Your task to perform on an android device: turn off javascript in the chrome app Image 0: 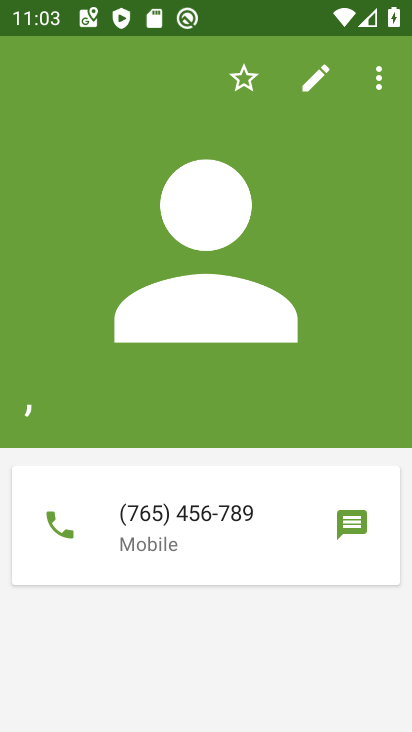
Step 0: press home button
Your task to perform on an android device: turn off javascript in the chrome app Image 1: 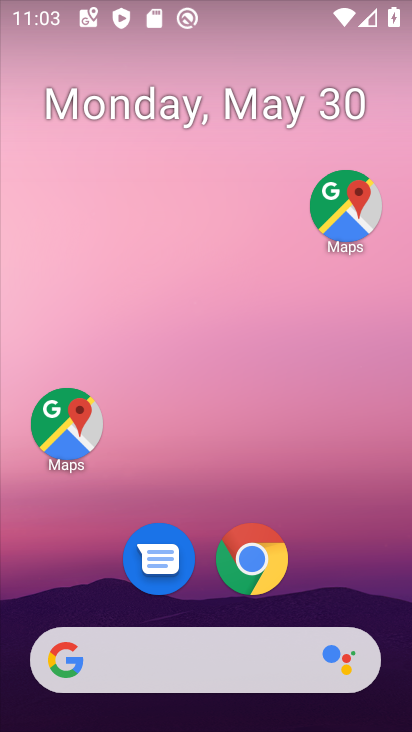
Step 1: click (247, 567)
Your task to perform on an android device: turn off javascript in the chrome app Image 2: 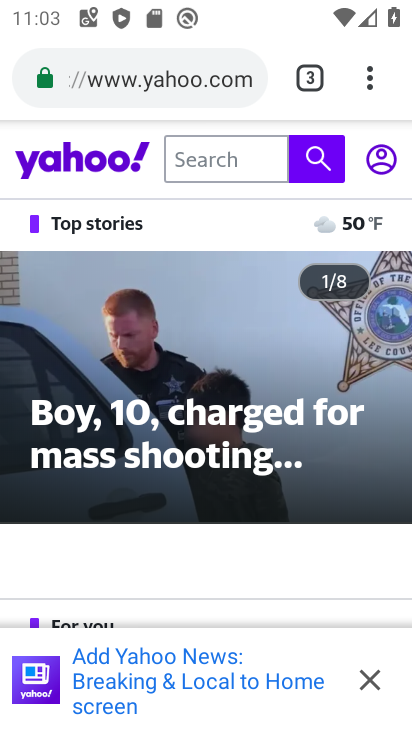
Step 2: drag from (370, 71) to (215, 635)
Your task to perform on an android device: turn off javascript in the chrome app Image 3: 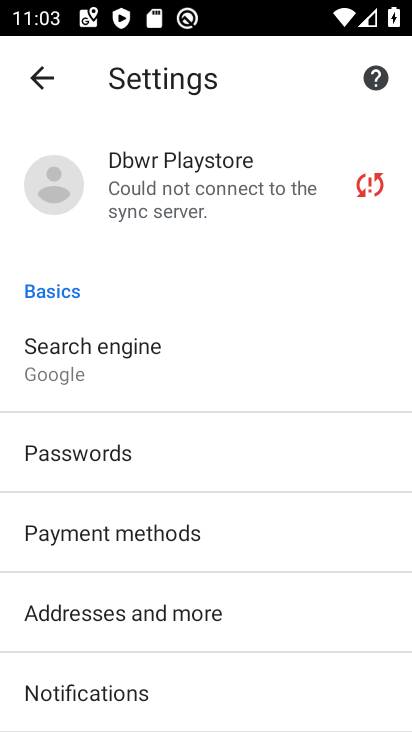
Step 3: drag from (225, 573) to (288, 147)
Your task to perform on an android device: turn off javascript in the chrome app Image 4: 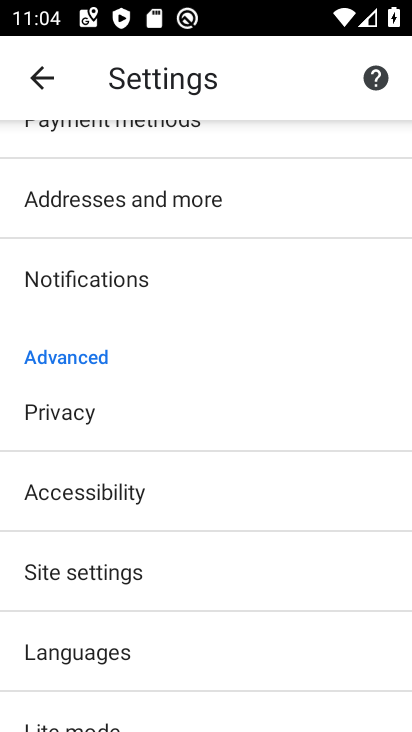
Step 4: drag from (158, 623) to (264, 269)
Your task to perform on an android device: turn off javascript in the chrome app Image 5: 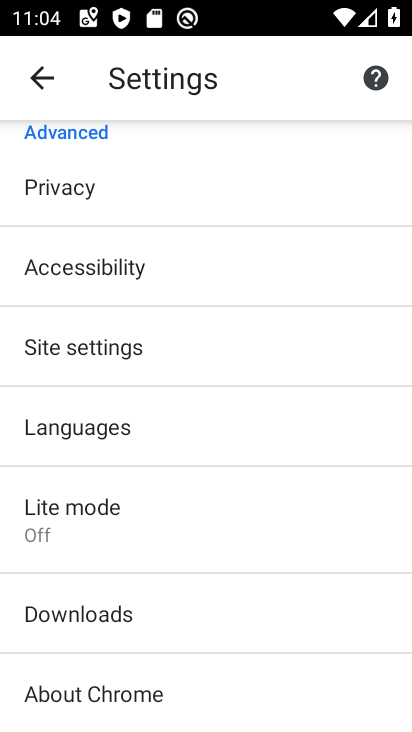
Step 5: click (118, 339)
Your task to perform on an android device: turn off javascript in the chrome app Image 6: 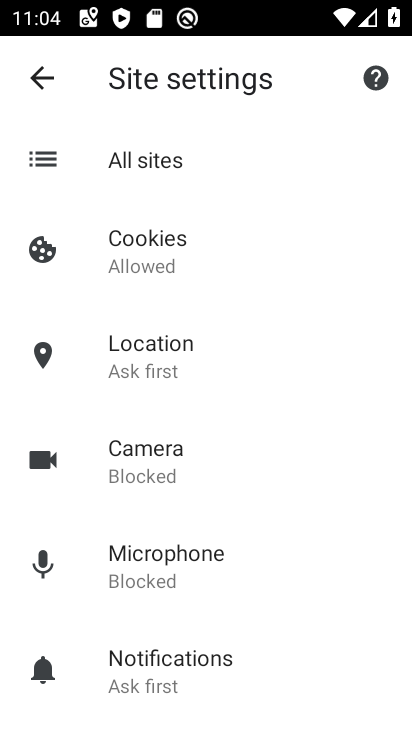
Step 6: drag from (196, 635) to (299, 216)
Your task to perform on an android device: turn off javascript in the chrome app Image 7: 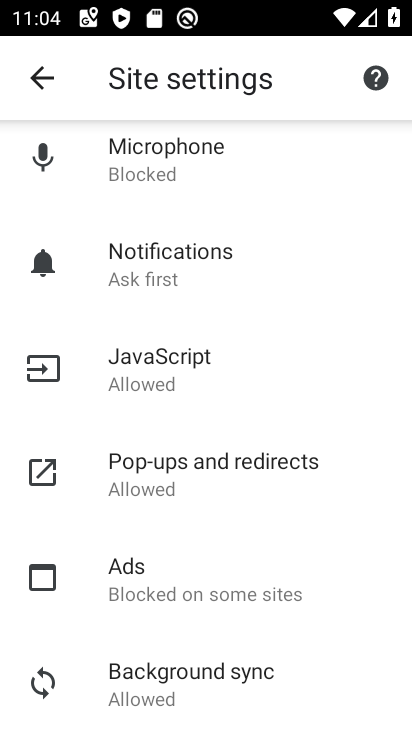
Step 7: click (165, 368)
Your task to perform on an android device: turn off javascript in the chrome app Image 8: 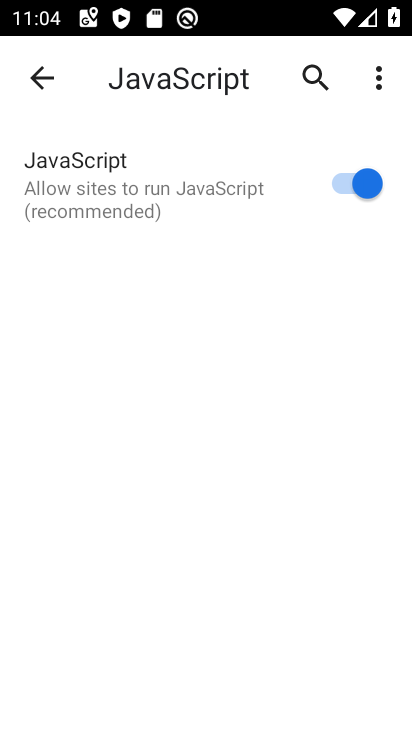
Step 8: click (347, 188)
Your task to perform on an android device: turn off javascript in the chrome app Image 9: 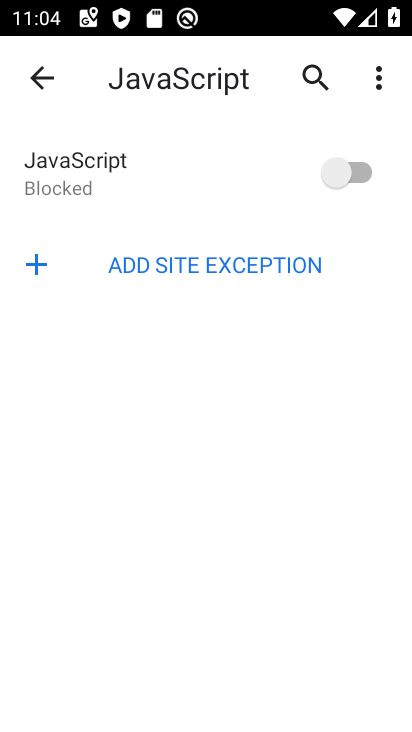
Step 9: task complete